Your task to perform on an android device: find photos in the google photos app Image 0: 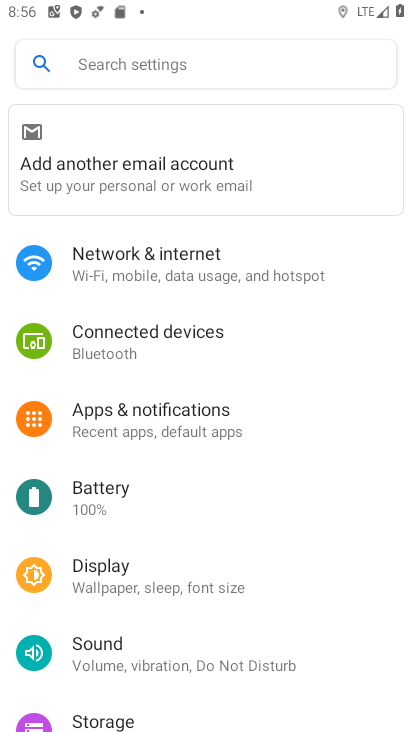
Step 0: press home button
Your task to perform on an android device: find photos in the google photos app Image 1: 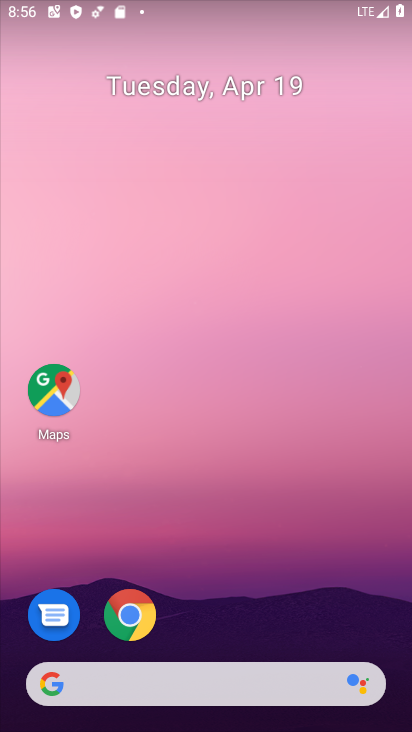
Step 1: drag from (269, 636) to (261, 107)
Your task to perform on an android device: find photos in the google photos app Image 2: 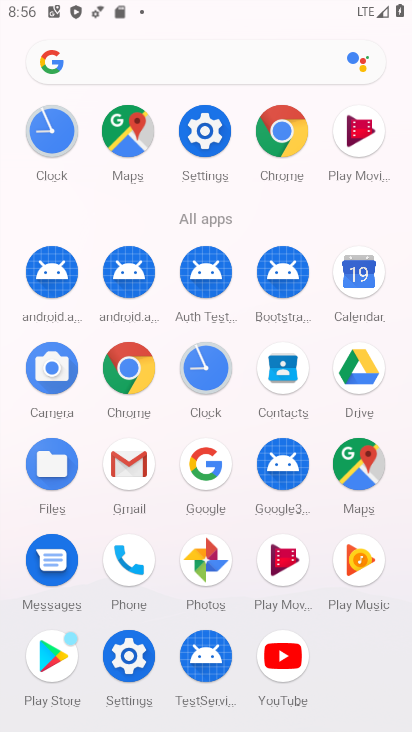
Step 2: click (201, 563)
Your task to perform on an android device: find photos in the google photos app Image 3: 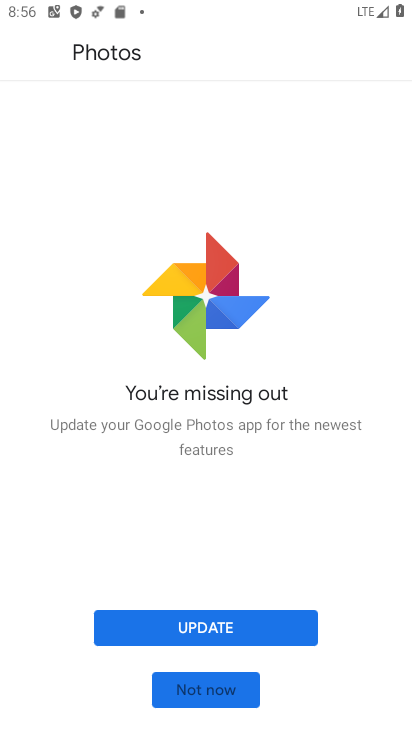
Step 3: click (242, 621)
Your task to perform on an android device: find photos in the google photos app Image 4: 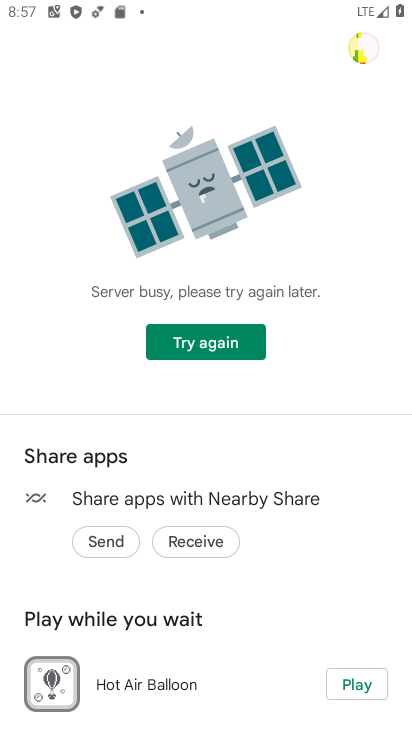
Step 4: press back button
Your task to perform on an android device: find photos in the google photos app Image 5: 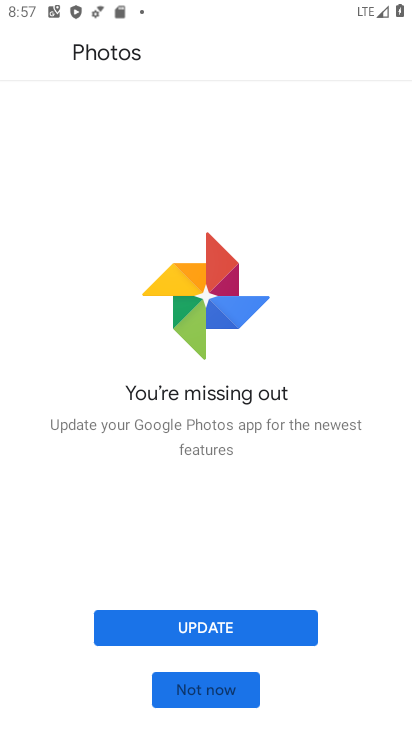
Step 5: click (221, 683)
Your task to perform on an android device: find photos in the google photos app Image 6: 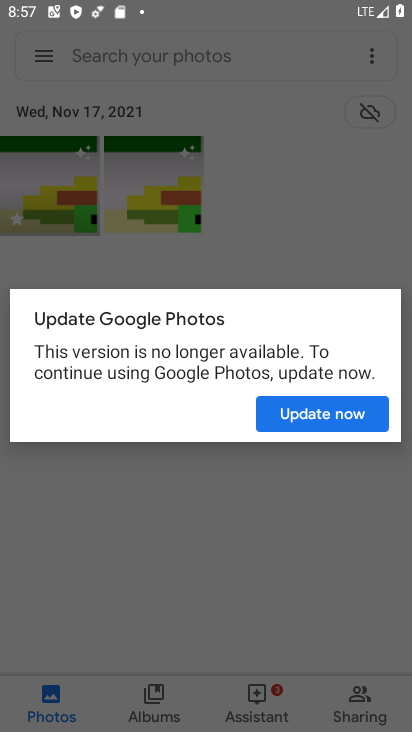
Step 6: click (301, 426)
Your task to perform on an android device: find photos in the google photos app Image 7: 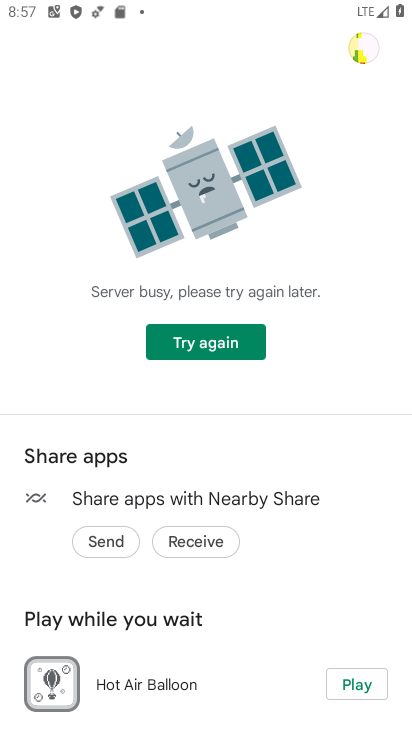
Step 7: click (141, 361)
Your task to perform on an android device: find photos in the google photos app Image 8: 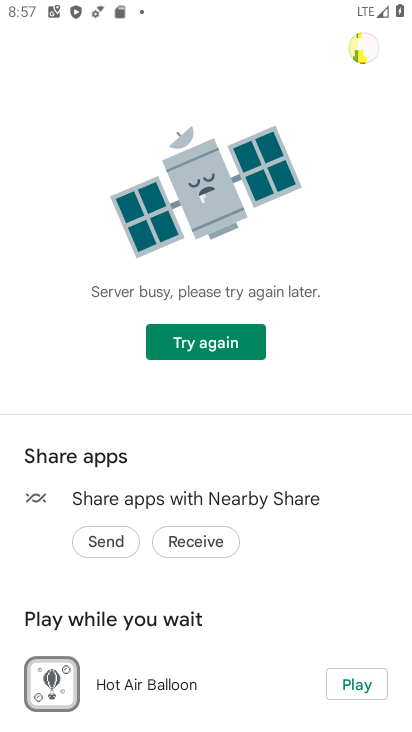
Step 8: click (159, 358)
Your task to perform on an android device: find photos in the google photos app Image 9: 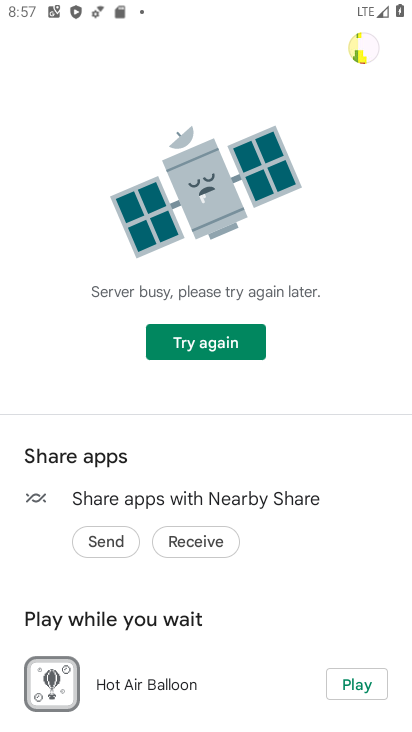
Step 9: task complete